Your task to perform on an android device: Check the weather Image 0: 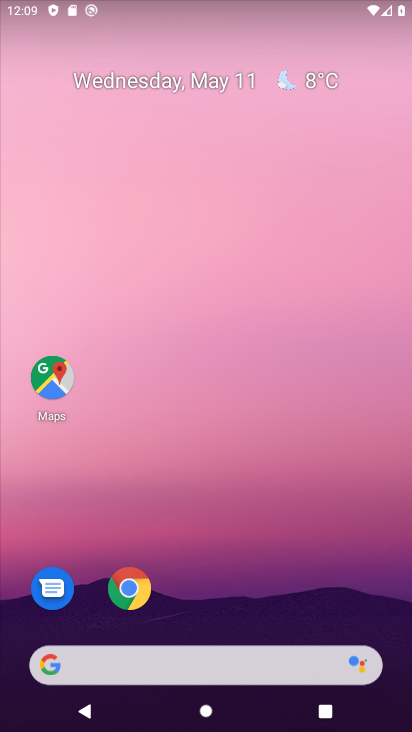
Step 0: click (297, 94)
Your task to perform on an android device: Check the weather Image 1: 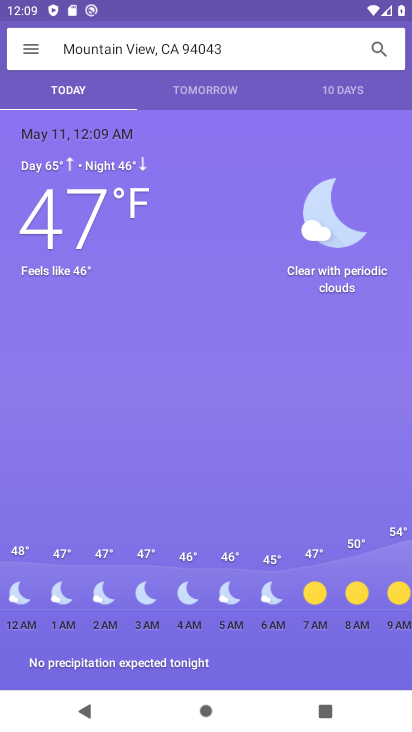
Step 1: task complete